Your task to perform on an android device: Go to Wikipedia Image 0: 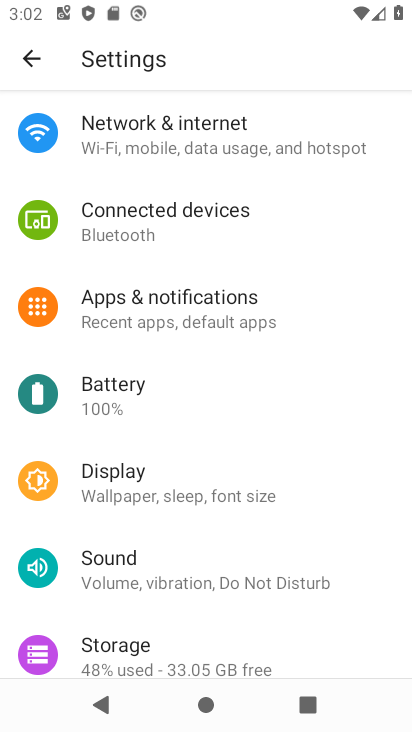
Step 0: press home button
Your task to perform on an android device: Go to Wikipedia Image 1: 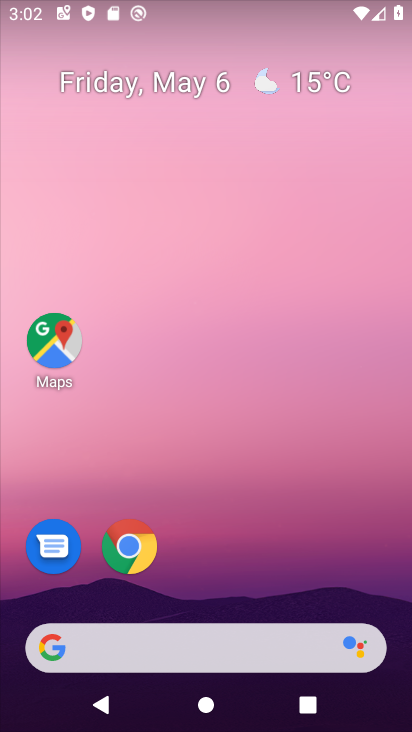
Step 1: drag from (201, 623) to (202, 200)
Your task to perform on an android device: Go to Wikipedia Image 2: 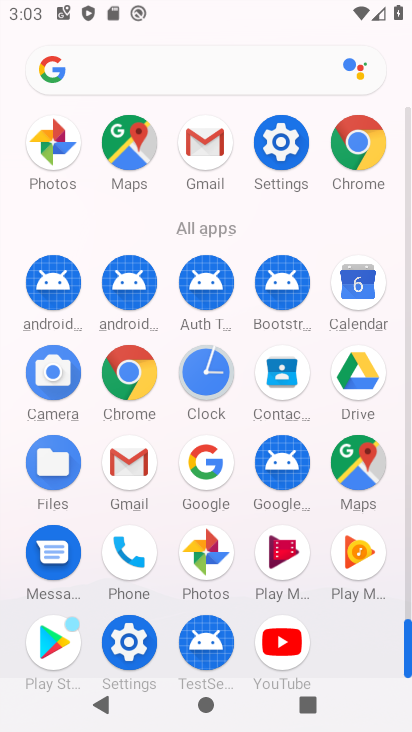
Step 2: click (358, 145)
Your task to perform on an android device: Go to Wikipedia Image 3: 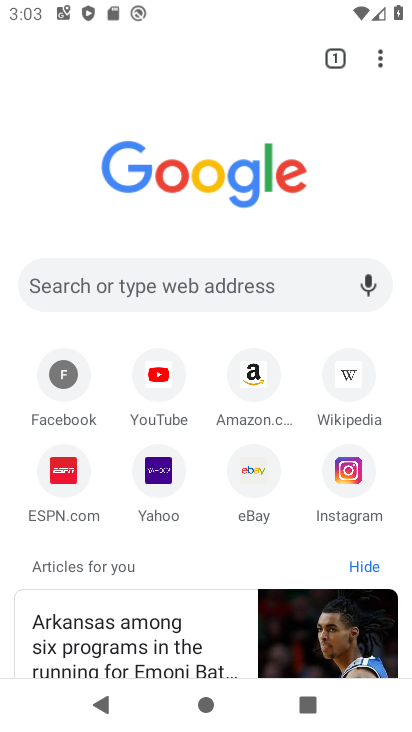
Step 3: click (350, 381)
Your task to perform on an android device: Go to Wikipedia Image 4: 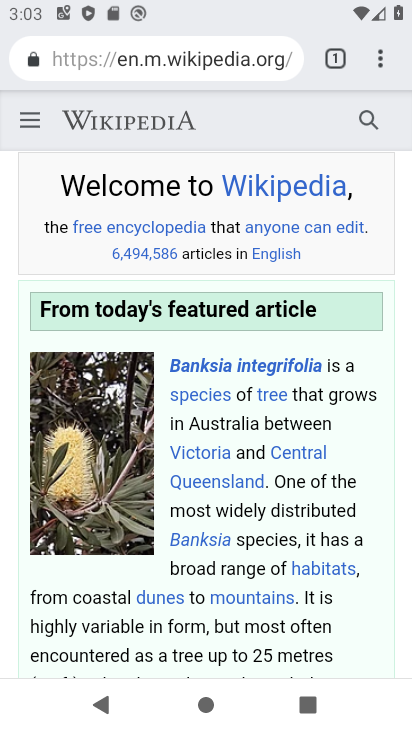
Step 4: task complete